Your task to perform on an android device: Open Chrome and go to the settings page Image 0: 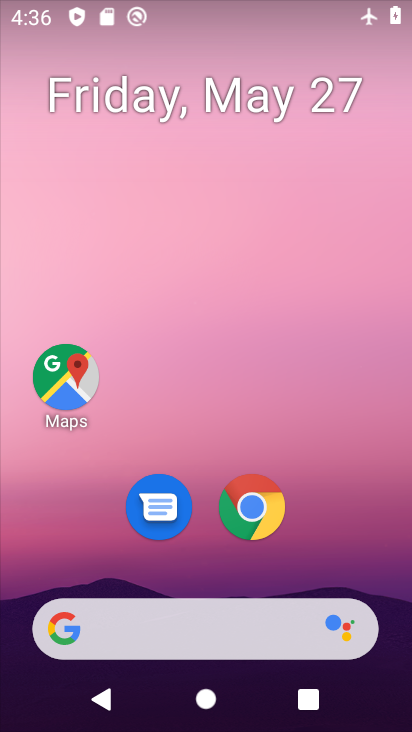
Step 0: click (250, 509)
Your task to perform on an android device: Open Chrome and go to the settings page Image 1: 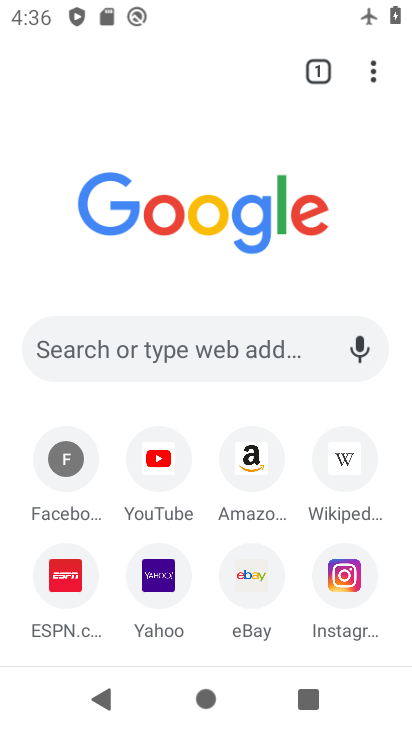
Step 1: click (373, 72)
Your task to perform on an android device: Open Chrome and go to the settings page Image 2: 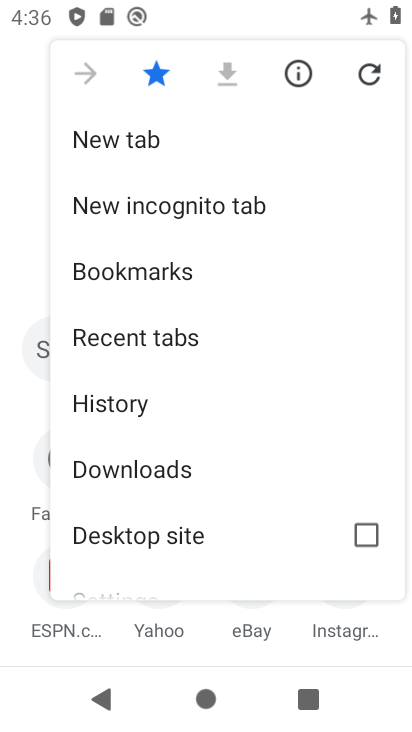
Step 2: drag from (163, 494) to (275, 305)
Your task to perform on an android device: Open Chrome and go to the settings page Image 3: 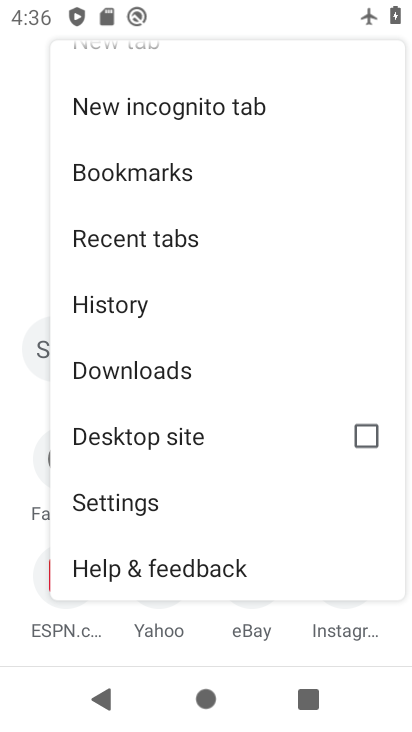
Step 3: click (127, 507)
Your task to perform on an android device: Open Chrome and go to the settings page Image 4: 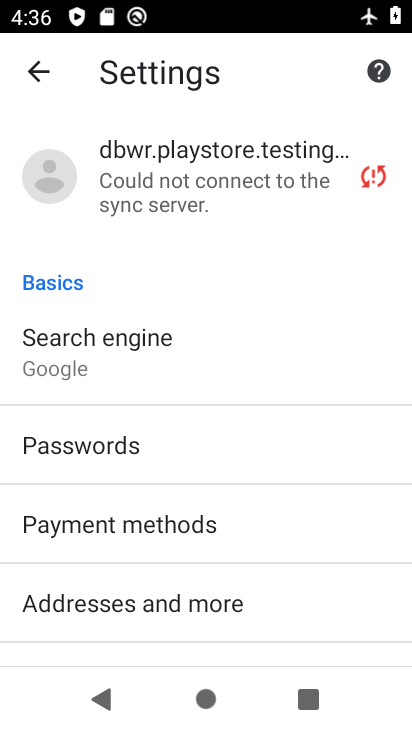
Step 4: task complete